Your task to perform on an android device: turn notification dots off Image 0: 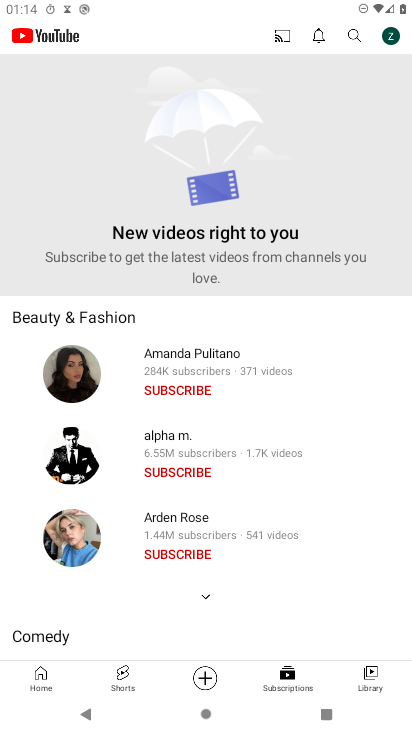
Step 0: press home button
Your task to perform on an android device: turn notification dots off Image 1: 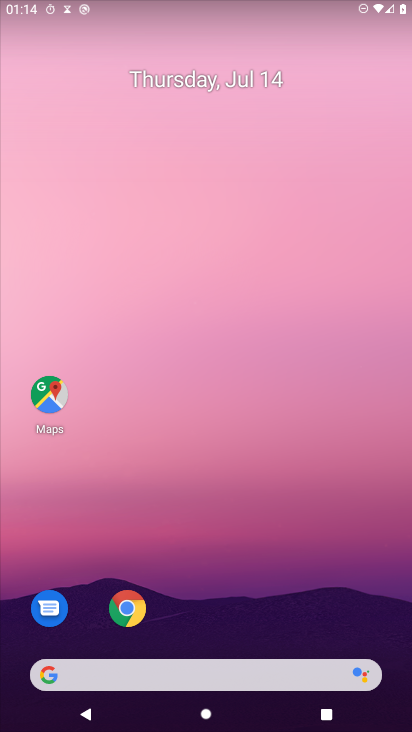
Step 1: press home button
Your task to perform on an android device: turn notification dots off Image 2: 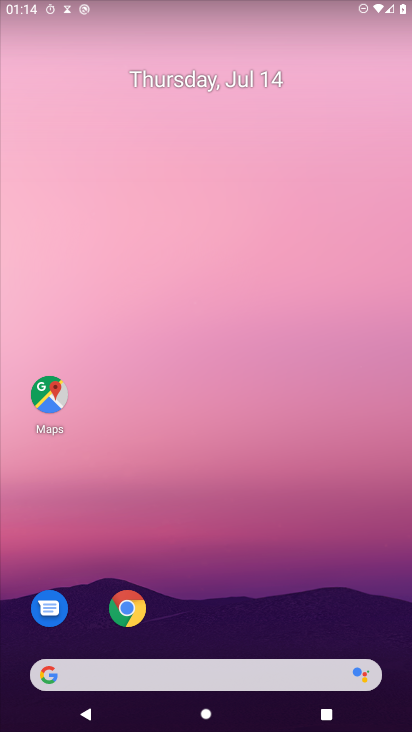
Step 2: drag from (296, 548) to (396, 63)
Your task to perform on an android device: turn notification dots off Image 3: 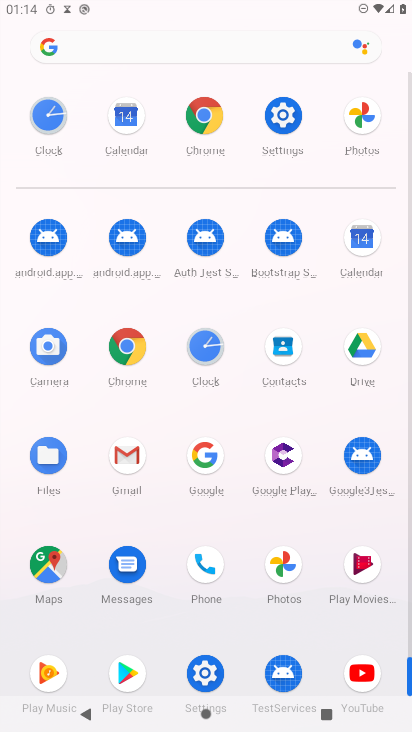
Step 3: click (280, 104)
Your task to perform on an android device: turn notification dots off Image 4: 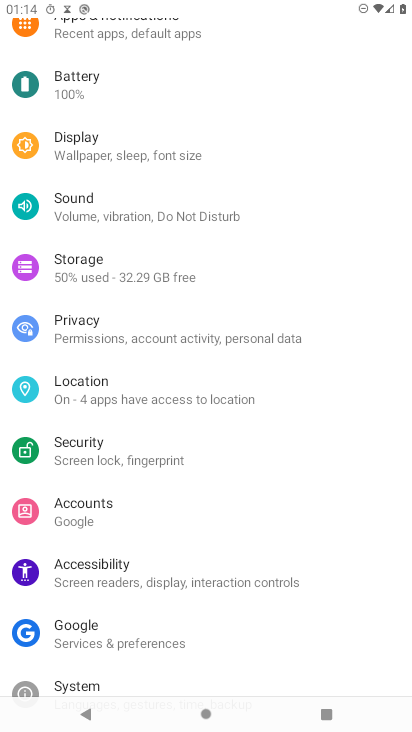
Step 4: drag from (305, 99) to (309, 393)
Your task to perform on an android device: turn notification dots off Image 5: 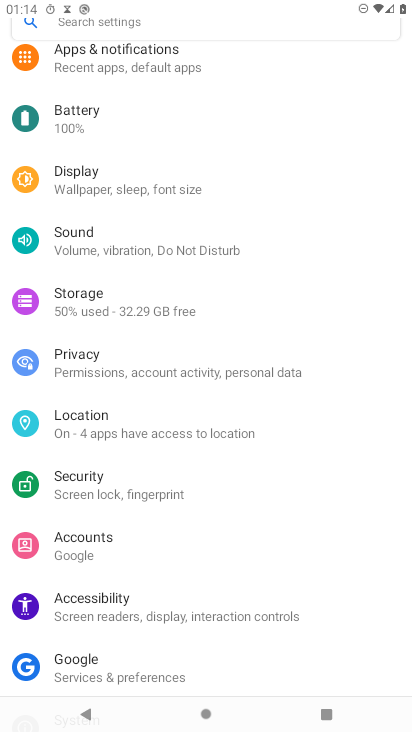
Step 5: click (140, 59)
Your task to perform on an android device: turn notification dots off Image 6: 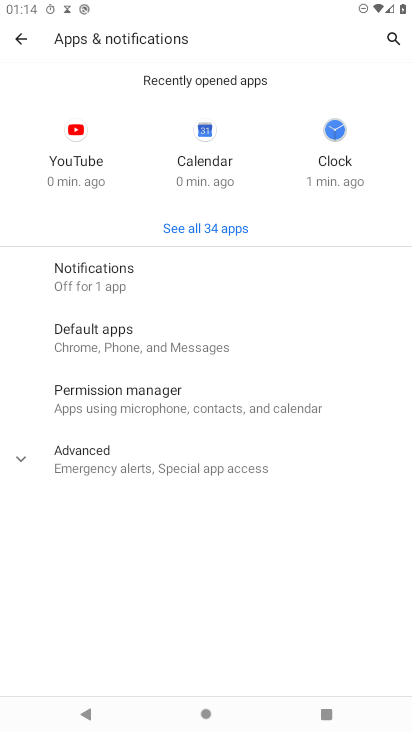
Step 6: click (100, 261)
Your task to perform on an android device: turn notification dots off Image 7: 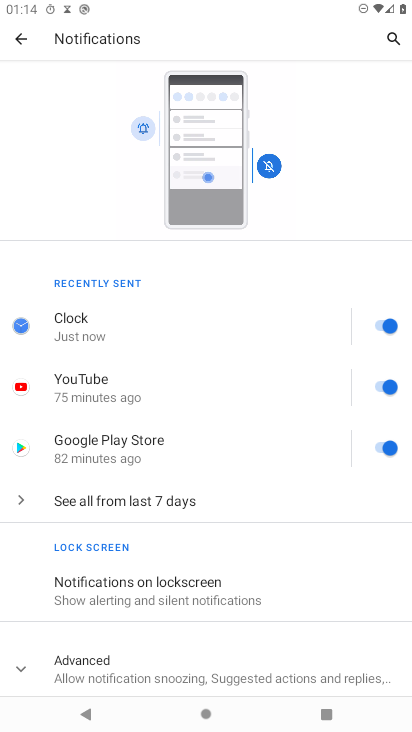
Step 7: drag from (318, 582) to (271, 284)
Your task to perform on an android device: turn notification dots off Image 8: 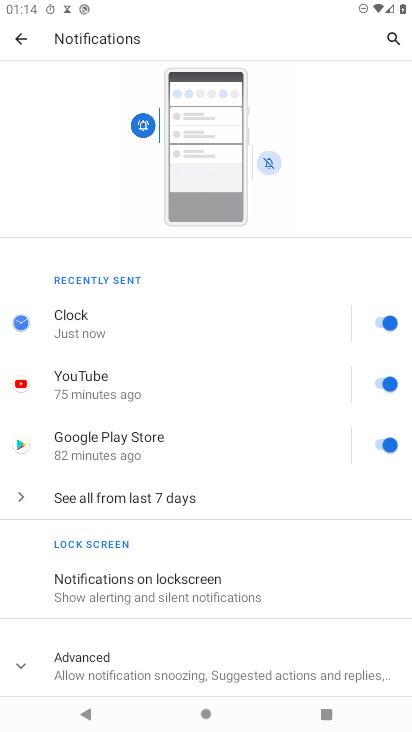
Step 8: click (19, 673)
Your task to perform on an android device: turn notification dots off Image 9: 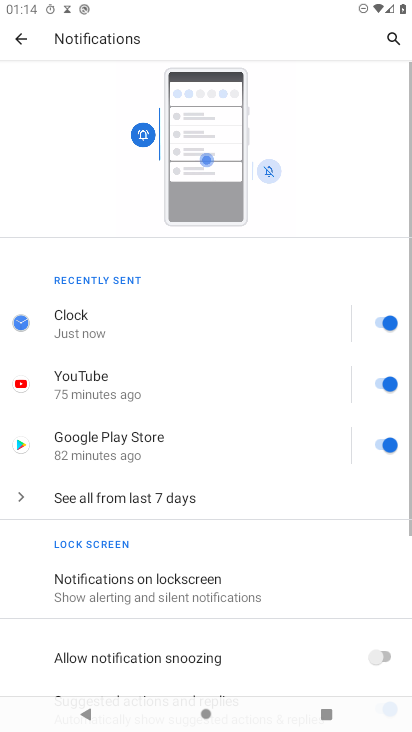
Step 9: task complete